Your task to perform on an android device: turn off picture-in-picture Image 0: 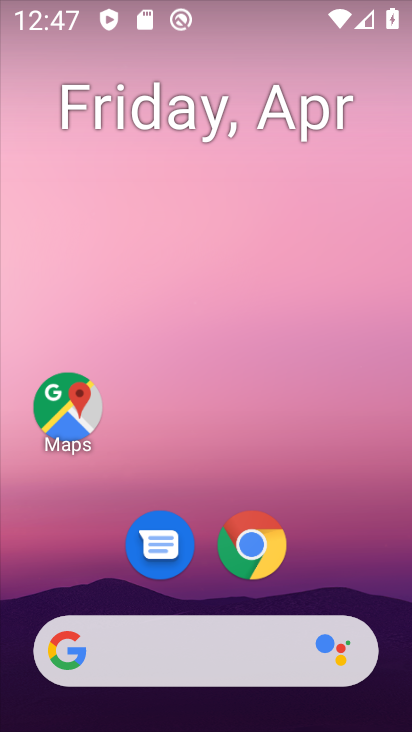
Step 0: drag from (334, 514) to (300, 71)
Your task to perform on an android device: turn off picture-in-picture Image 1: 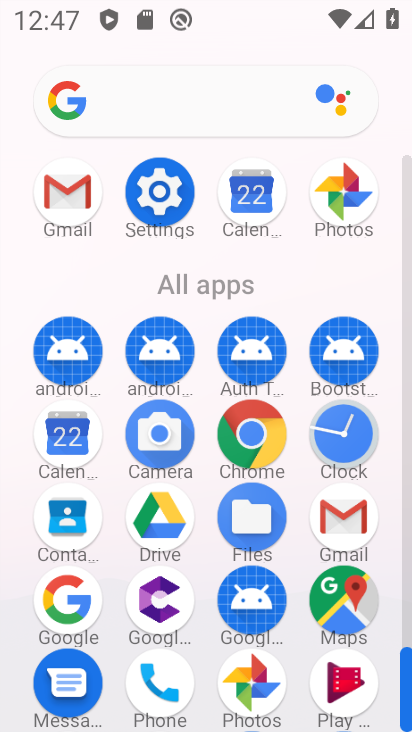
Step 1: click (175, 190)
Your task to perform on an android device: turn off picture-in-picture Image 2: 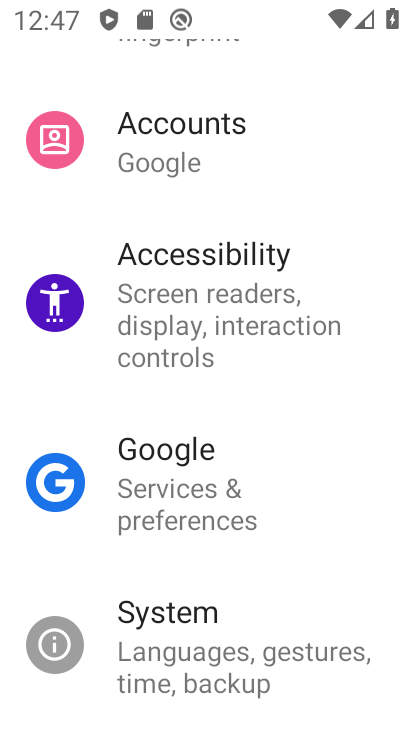
Step 2: drag from (277, 241) to (231, 652)
Your task to perform on an android device: turn off picture-in-picture Image 3: 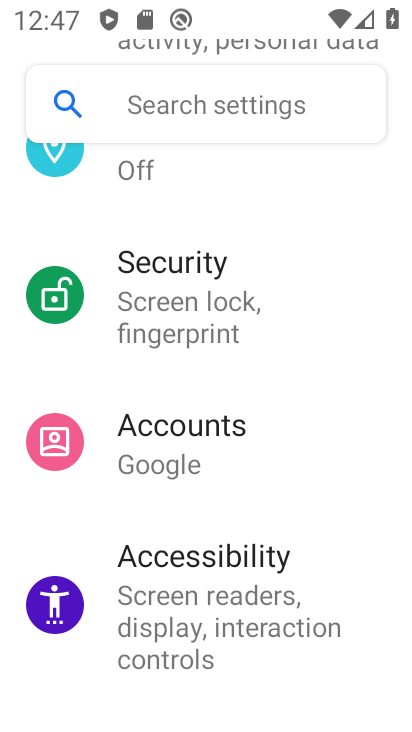
Step 3: drag from (305, 222) to (302, 618)
Your task to perform on an android device: turn off picture-in-picture Image 4: 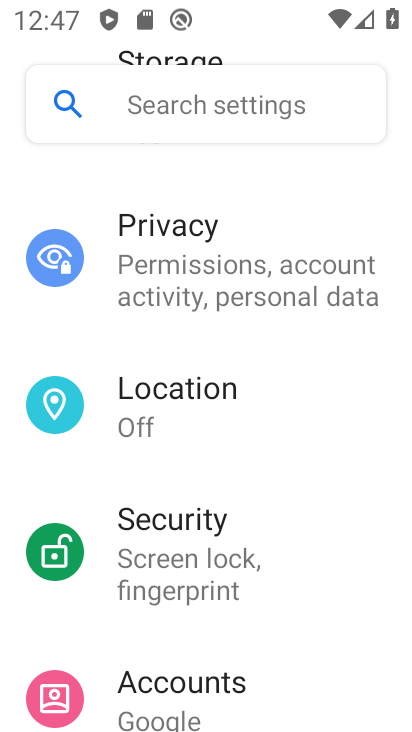
Step 4: drag from (300, 239) to (295, 631)
Your task to perform on an android device: turn off picture-in-picture Image 5: 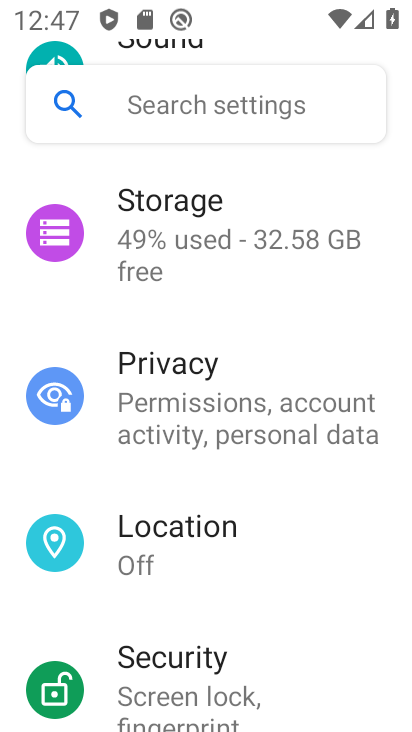
Step 5: drag from (282, 191) to (278, 599)
Your task to perform on an android device: turn off picture-in-picture Image 6: 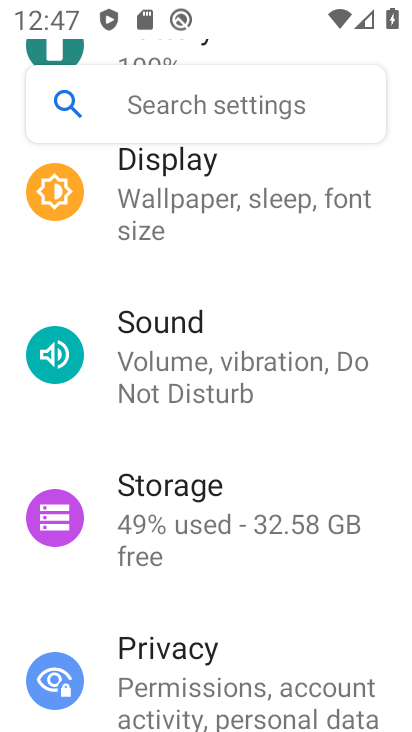
Step 6: drag from (261, 304) to (263, 638)
Your task to perform on an android device: turn off picture-in-picture Image 7: 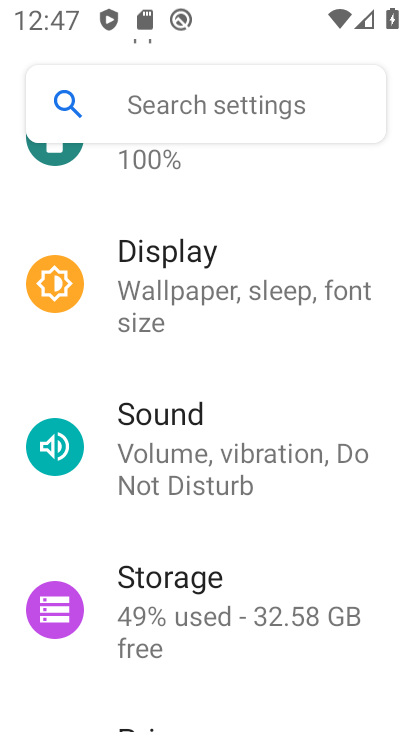
Step 7: drag from (256, 218) to (255, 552)
Your task to perform on an android device: turn off picture-in-picture Image 8: 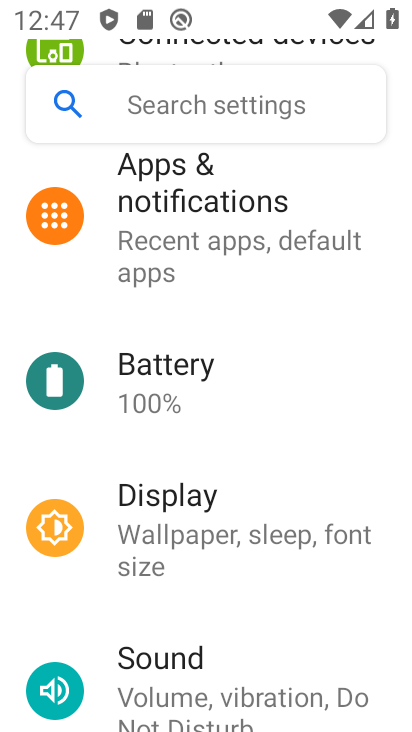
Step 8: click (244, 218)
Your task to perform on an android device: turn off picture-in-picture Image 9: 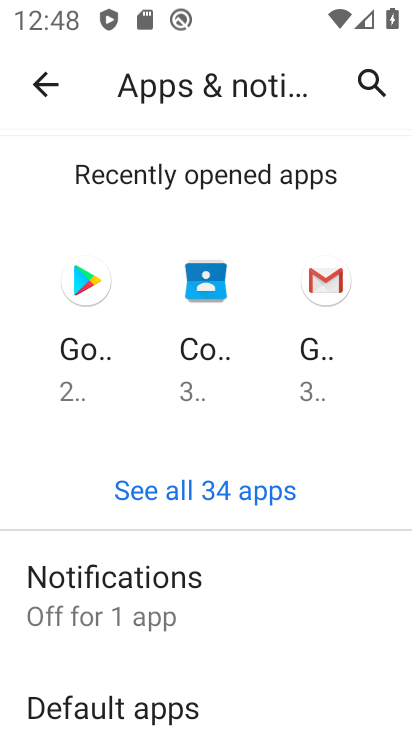
Step 9: drag from (299, 671) to (294, 279)
Your task to perform on an android device: turn off picture-in-picture Image 10: 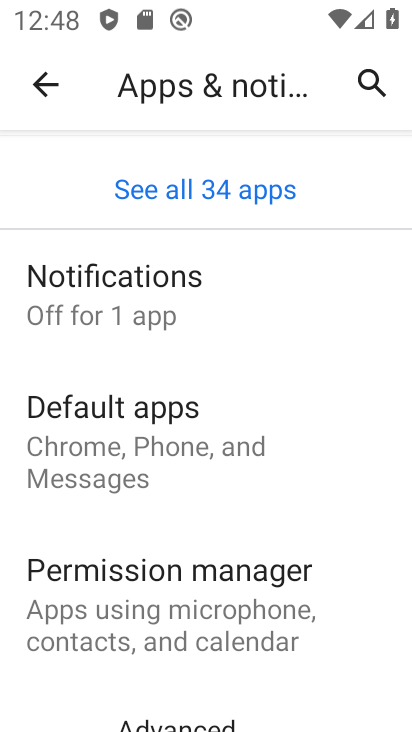
Step 10: drag from (329, 312) to (339, 247)
Your task to perform on an android device: turn off picture-in-picture Image 11: 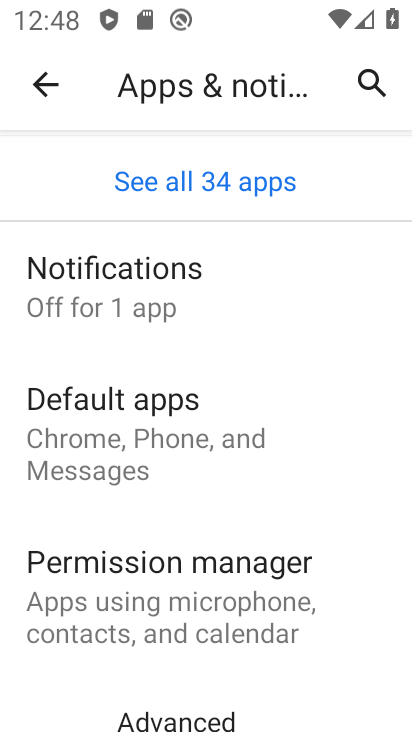
Step 11: drag from (317, 624) to (316, 218)
Your task to perform on an android device: turn off picture-in-picture Image 12: 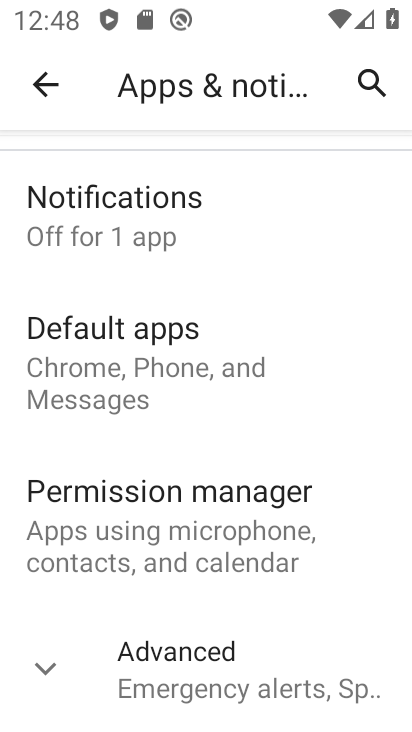
Step 12: click (264, 684)
Your task to perform on an android device: turn off picture-in-picture Image 13: 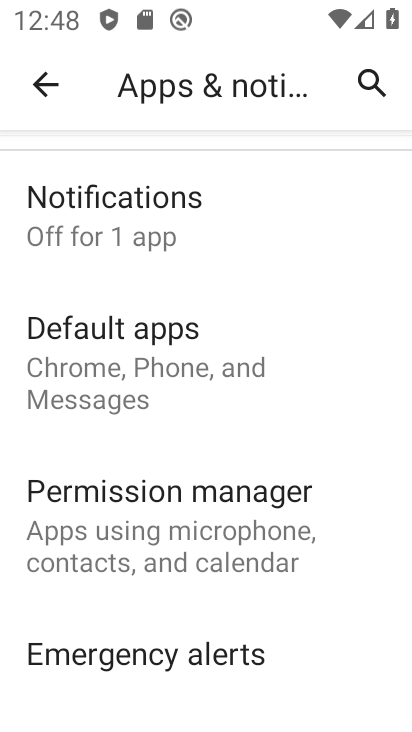
Step 13: drag from (308, 642) to (306, 221)
Your task to perform on an android device: turn off picture-in-picture Image 14: 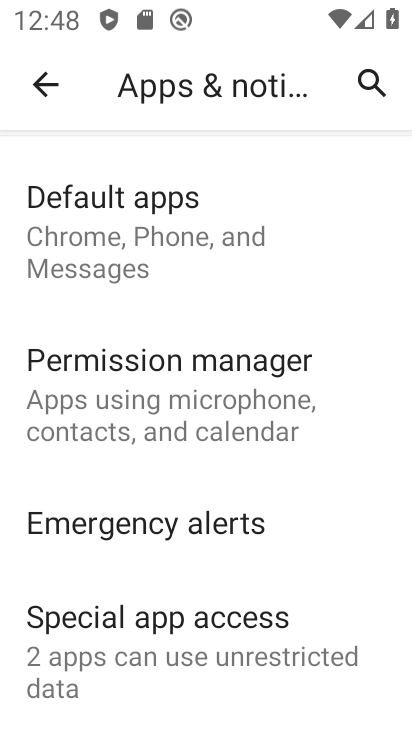
Step 14: click (250, 660)
Your task to perform on an android device: turn off picture-in-picture Image 15: 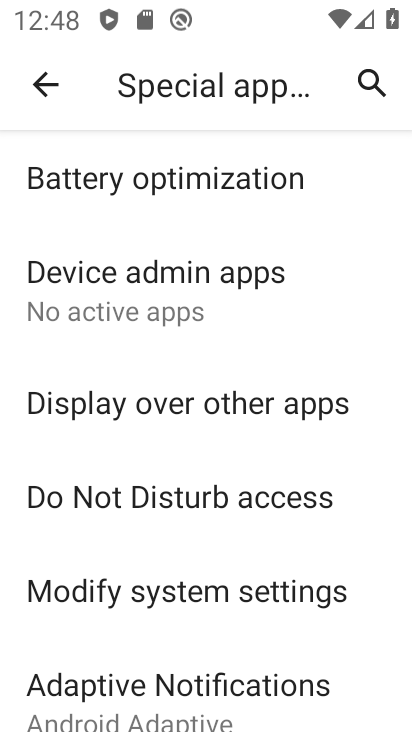
Step 15: drag from (345, 642) to (325, 239)
Your task to perform on an android device: turn off picture-in-picture Image 16: 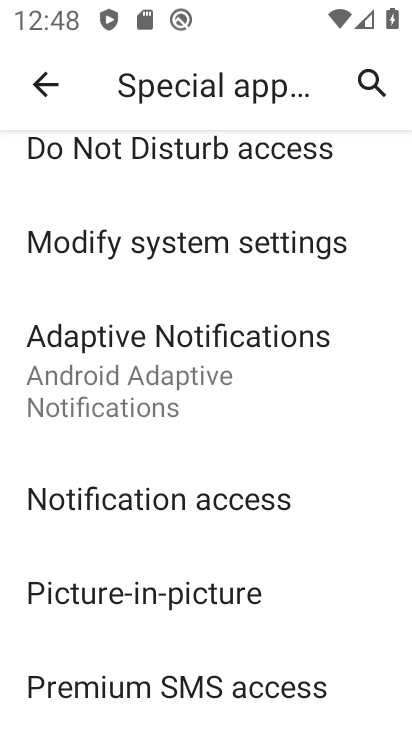
Step 16: click (214, 594)
Your task to perform on an android device: turn off picture-in-picture Image 17: 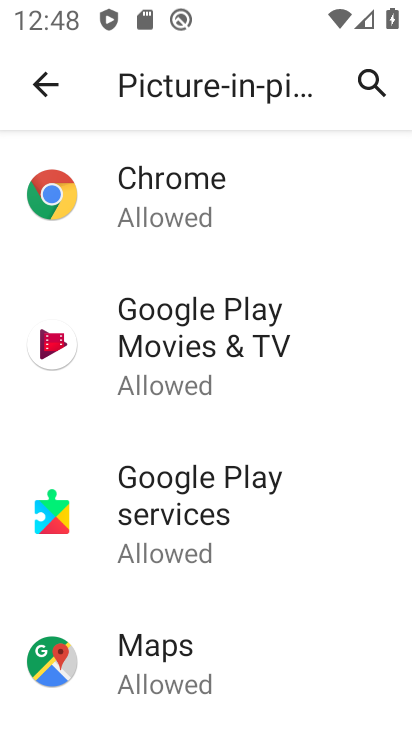
Step 17: click (177, 199)
Your task to perform on an android device: turn off picture-in-picture Image 18: 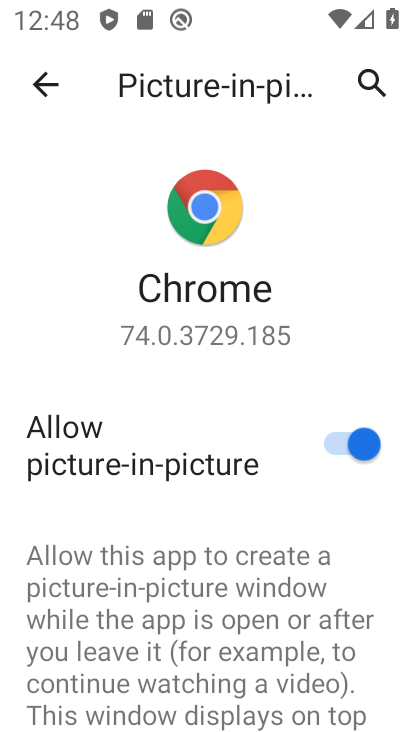
Step 18: click (345, 433)
Your task to perform on an android device: turn off picture-in-picture Image 19: 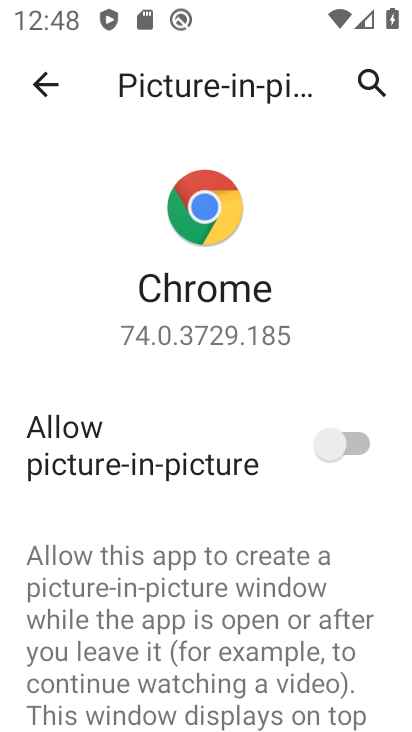
Step 19: click (54, 93)
Your task to perform on an android device: turn off picture-in-picture Image 20: 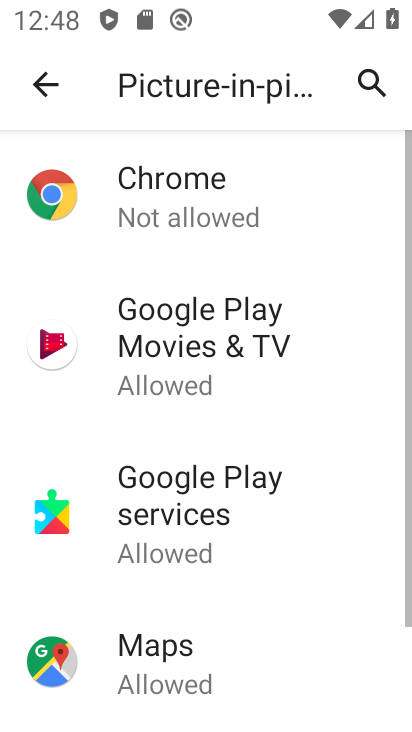
Step 20: click (238, 363)
Your task to perform on an android device: turn off picture-in-picture Image 21: 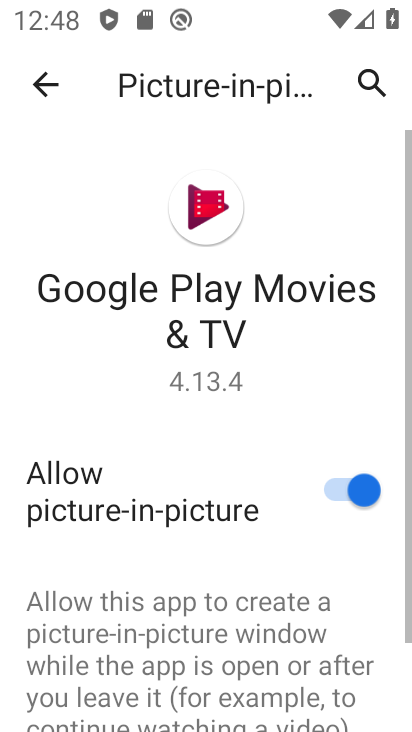
Step 21: click (343, 486)
Your task to perform on an android device: turn off picture-in-picture Image 22: 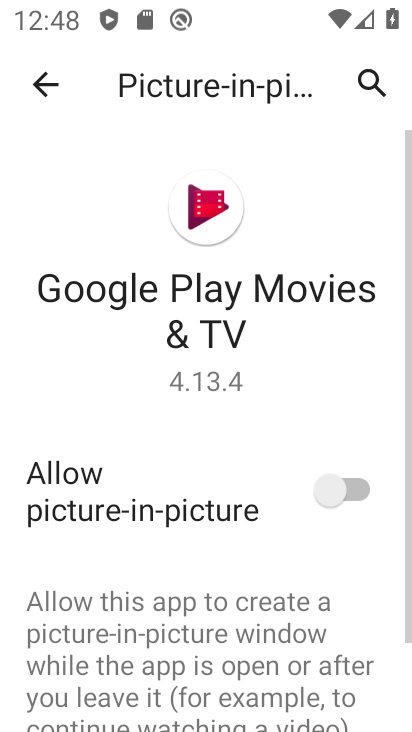
Step 22: click (47, 80)
Your task to perform on an android device: turn off picture-in-picture Image 23: 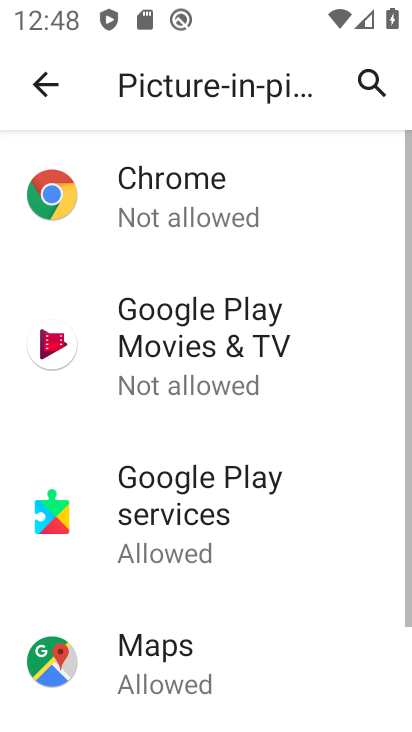
Step 23: click (236, 510)
Your task to perform on an android device: turn off picture-in-picture Image 24: 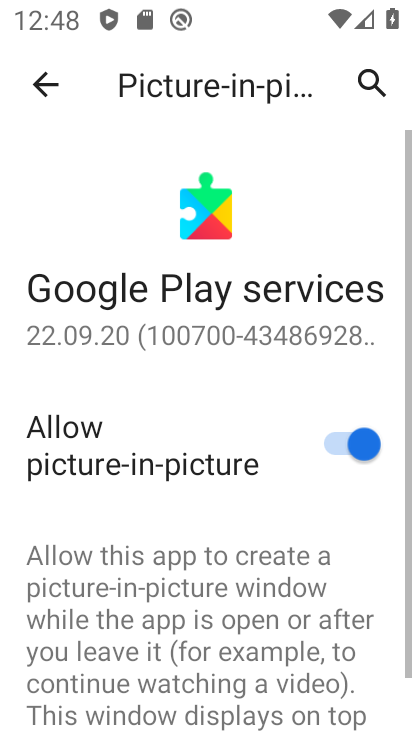
Step 24: click (328, 437)
Your task to perform on an android device: turn off picture-in-picture Image 25: 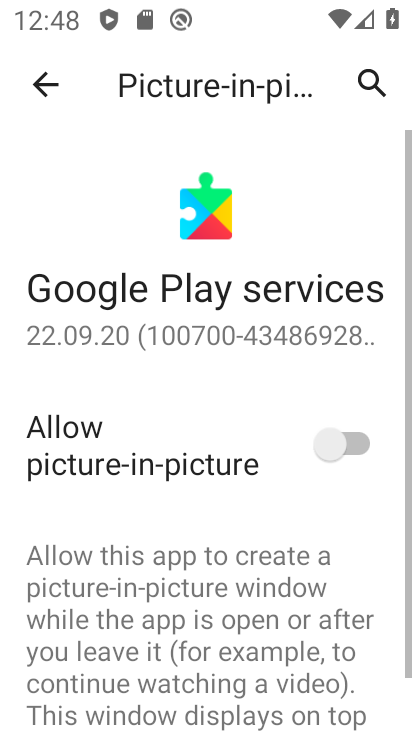
Step 25: click (36, 89)
Your task to perform on an android device: turn off picture-in-picture Image 26: 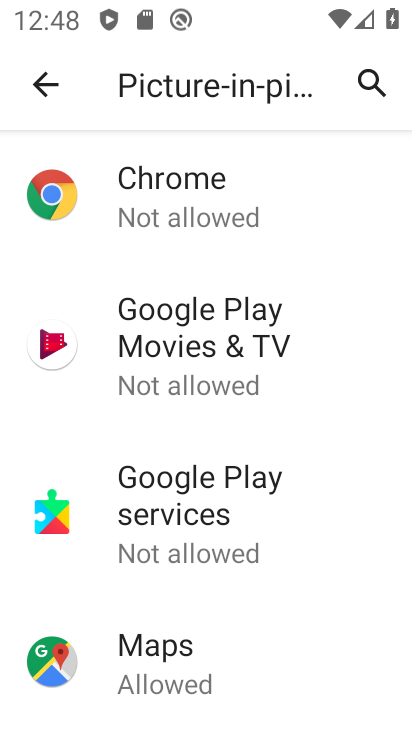
Step 26: drag from (218, 593) to (252, 180)
Your task to perform on an android device: turn off picture-in-picture Image 27: 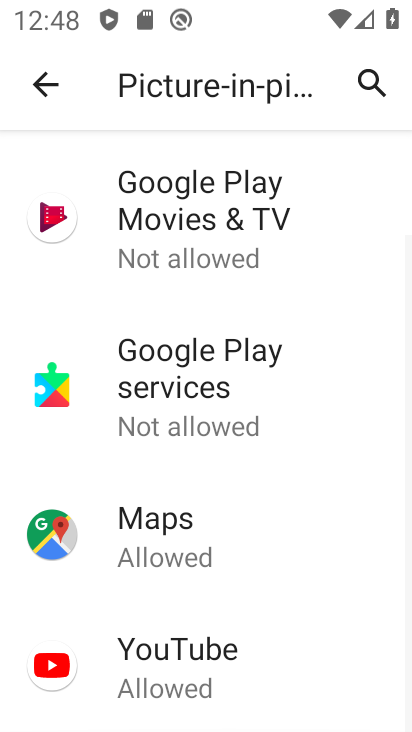
Step 27: click (177, 531)
Your task to perform on an android device: turn off picture-in-picture Image 28: 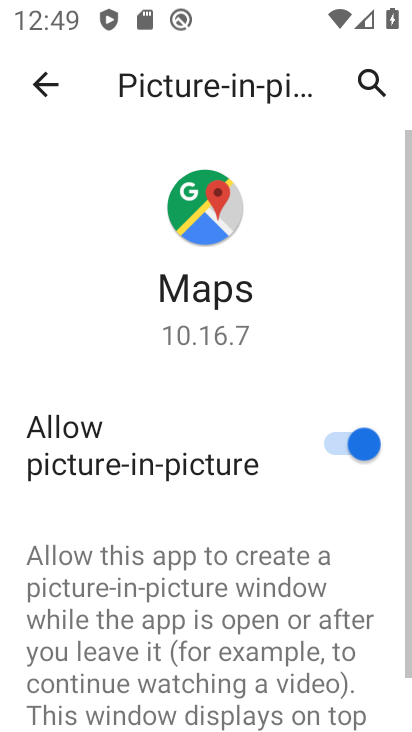
Step 28: click (333, 438)
Your task to perform on an android device: turn off picture-in-picture Image 29: 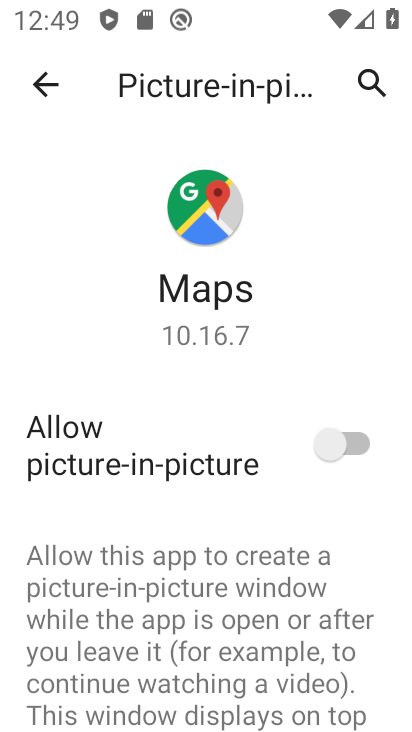
Step 29: click (47, 86)
Your task to perform on an android device: turn off picture-in-picture Image 30: 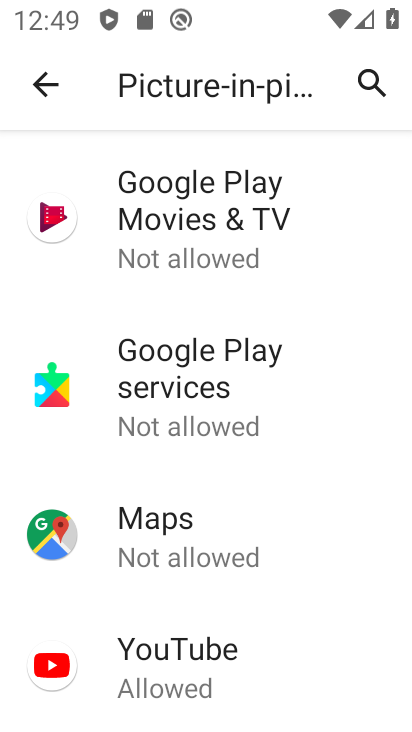
Step 30: click (193, 678)
Your task to perform on an android device: turn off picture-in-picture Image 31: 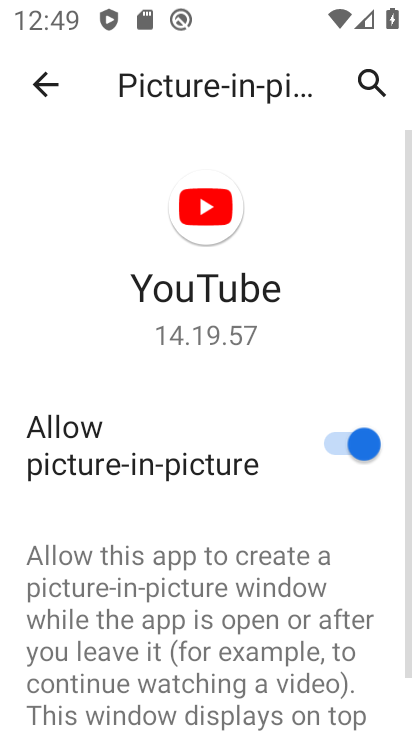
Step 31: click (331, 440)
Your task to perform on an android device: turn off picture-in-picture Image 32: 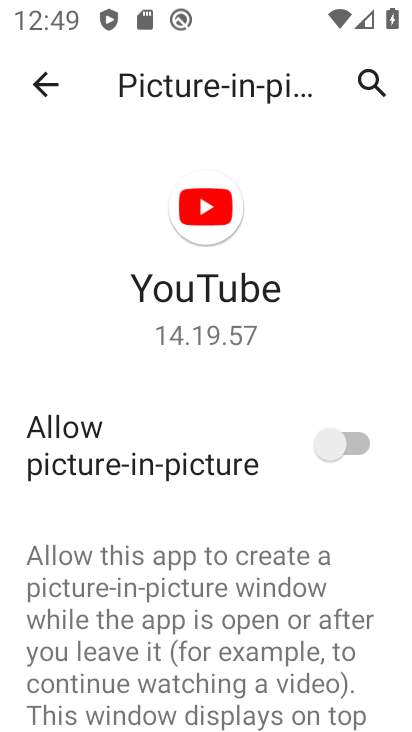
Step 32: task complete